Your task to perform on an android device: Open Chrome and go to settings Image 0: 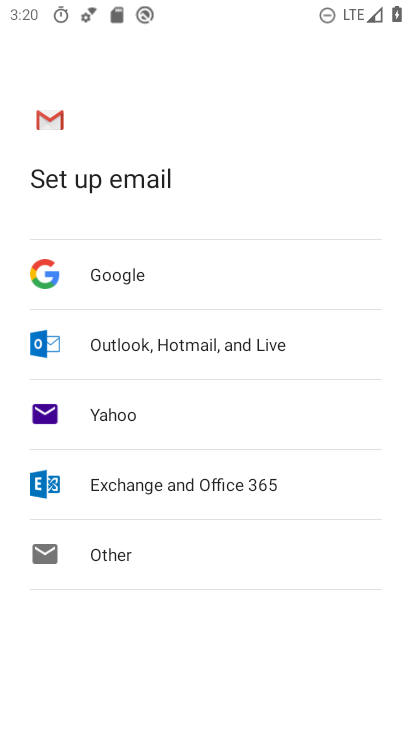
Step 0: press home button
Your task to perform on an android device: Open Chrome and go to settings Image 1: 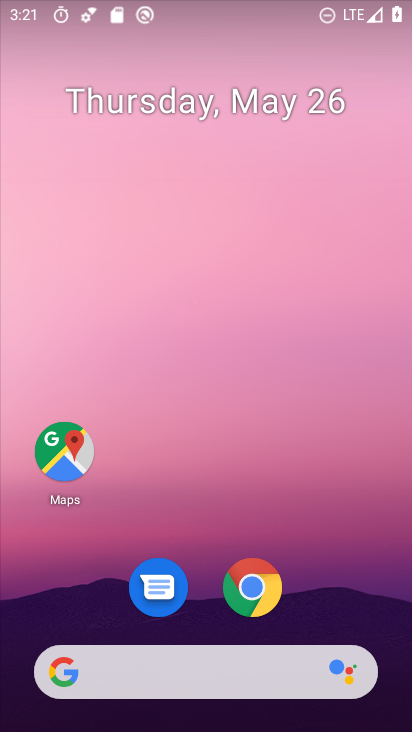
Step 1: drag from (366, 566) to (256, 74)
Your task to perform on an android device: Open Chrome and go to settings Image 2: 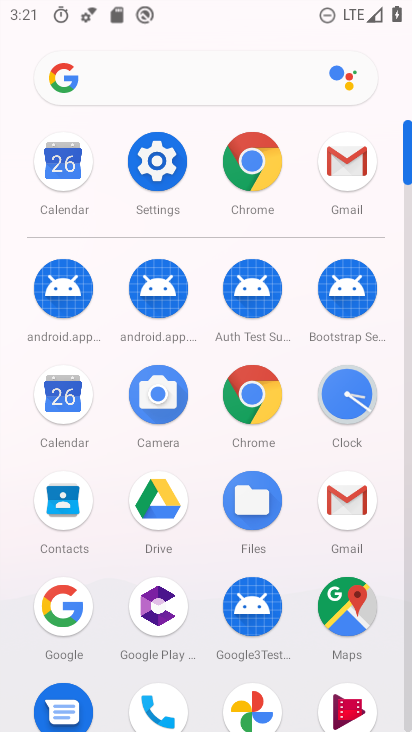
Step 2: click (252, 148)
Your task to perform on an android device: Open Chrome and go to settings Image 3: 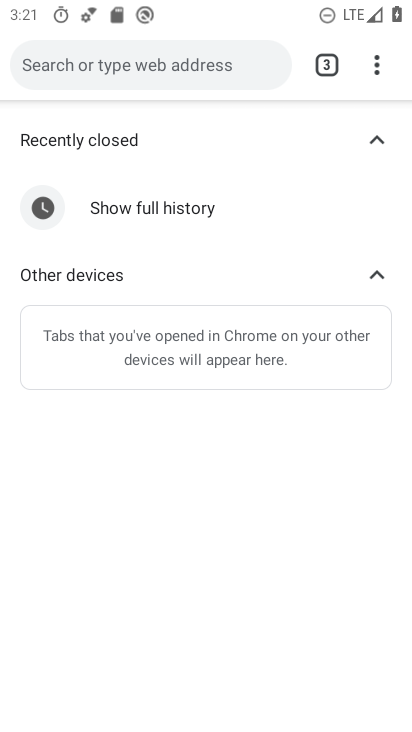
Step 3: task complete